Your task to perform on an android device: See recent photos Image 0: 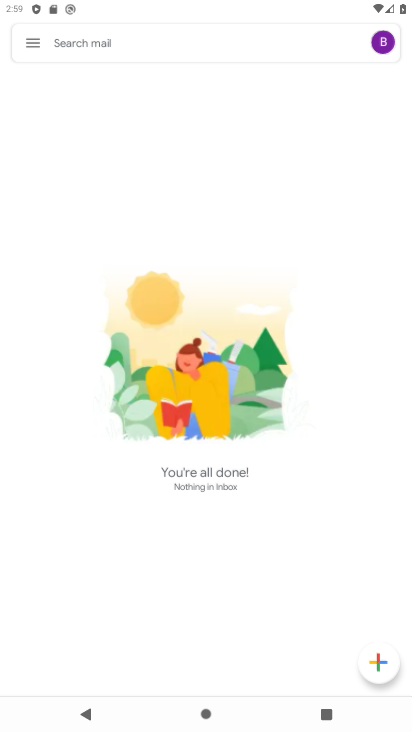
Step 0: press home button
Your task to perform on an android device: See recent photos Image 1: 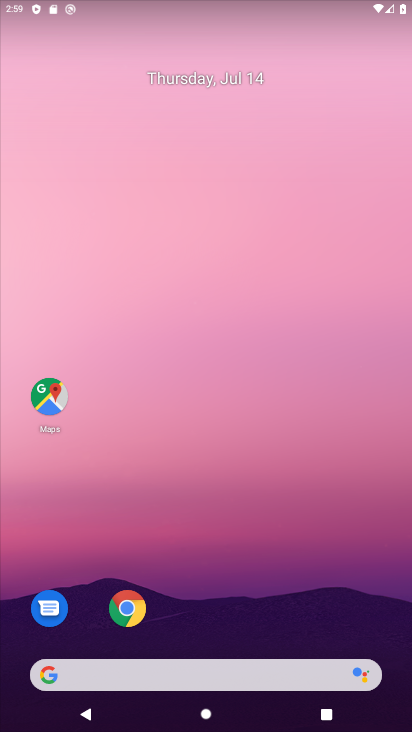
Step 1: drag from (202, 623) to (167, 107)
Your task to perform on an android device: See recent photos Image 2: 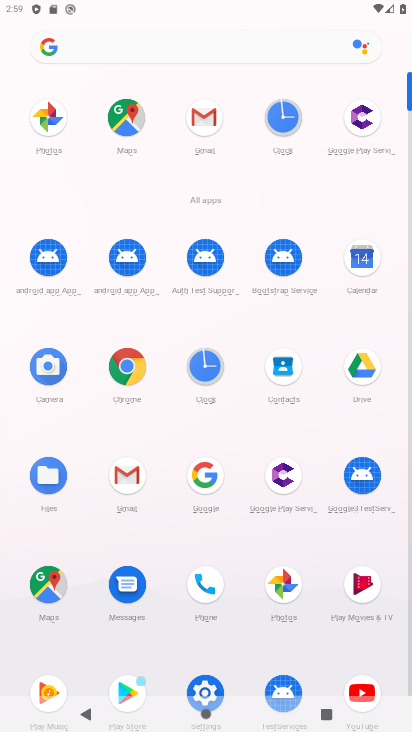
Step 2: click (278, 581)
Your task to perform on an android device: See recent photos Image 3: 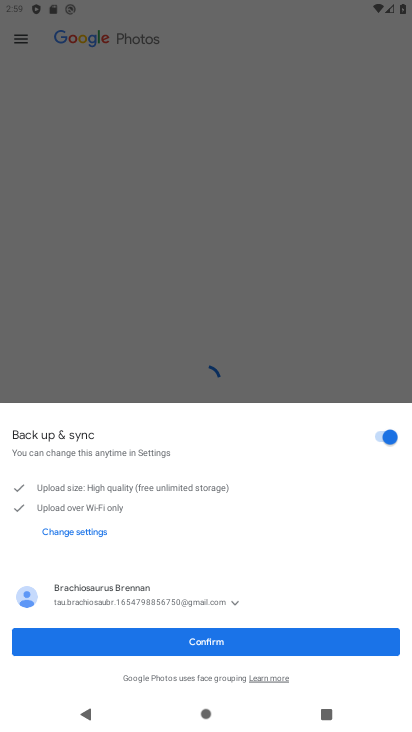
Step 3: click (214, 639)
Your task to perform on an android device: See recent photos Image 4: 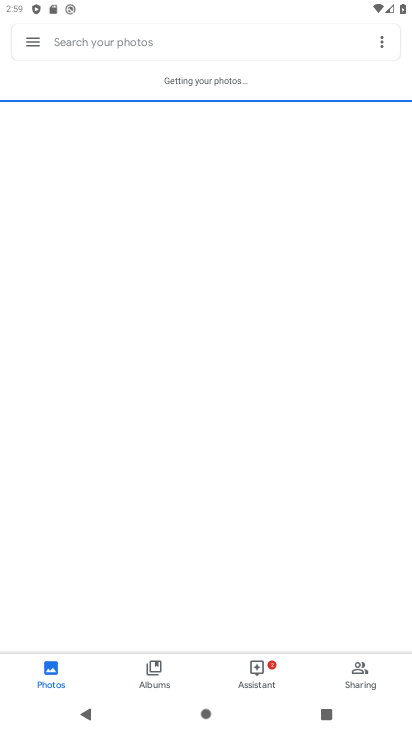
Step 4: task complete